Your task to perform on an android device: set an alarm Image 0: 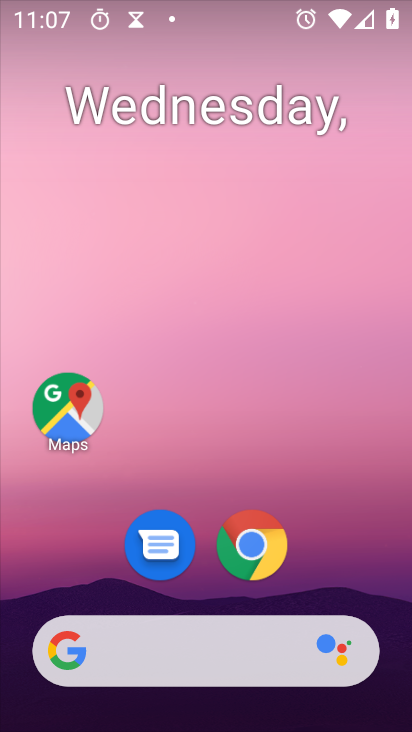
Step 0: press home button
Your task to perform on an android device: set an alarm Image 1: 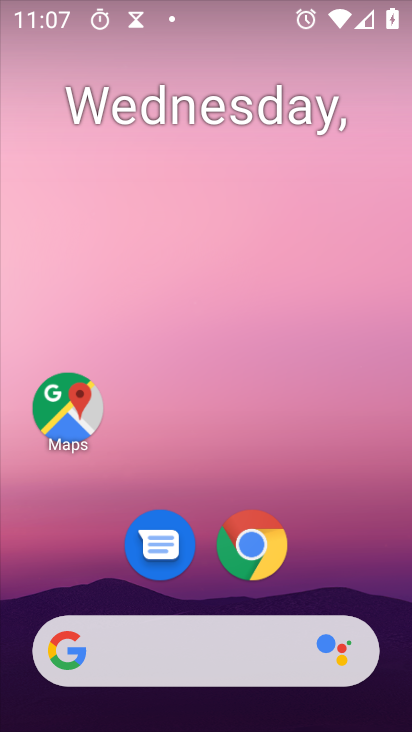
Step 1: drag from (166, 644) to (291, 118)
Your task to perform on an android device: set an alarm Image 2: 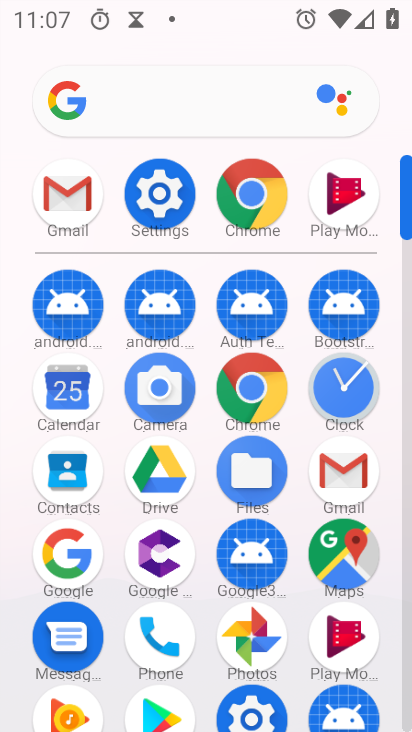
Step 2: click (350, 390)
Your task to perform on an android device: set an alarm Image 3: 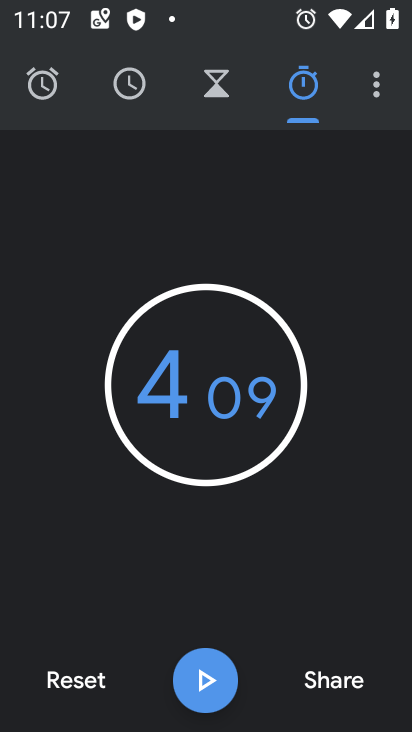
Step 3: click (45, 73)
Your task to perform on an android device: set an alarm Image 4: 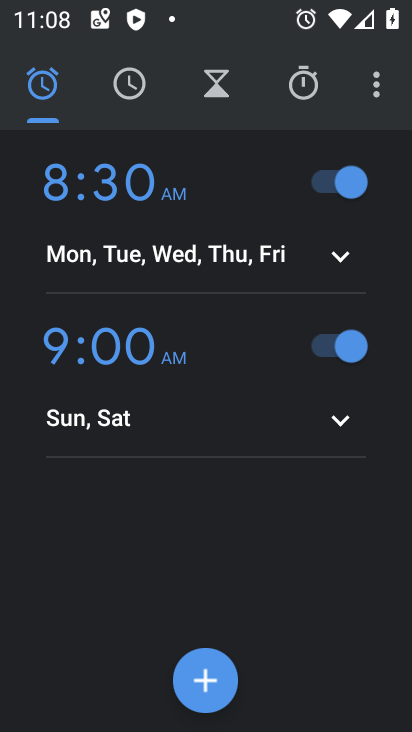
Step 4: task complete